Your task to perform on an android device: Open Chrome and go to settings Image 0: 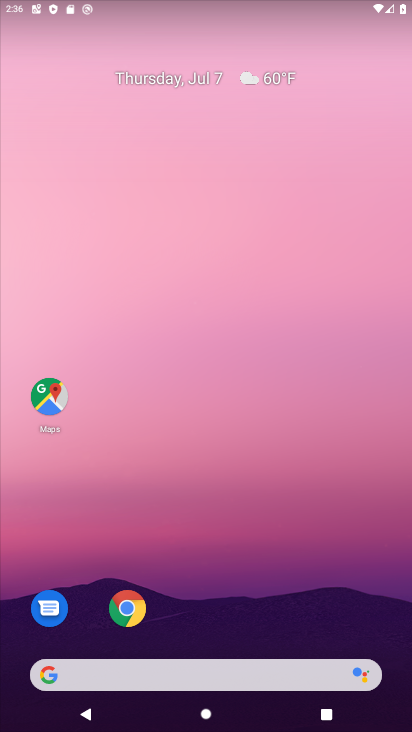
Step 0: press home button
Your task to perform on an android device: Open Chrome and go to settings Image 1: 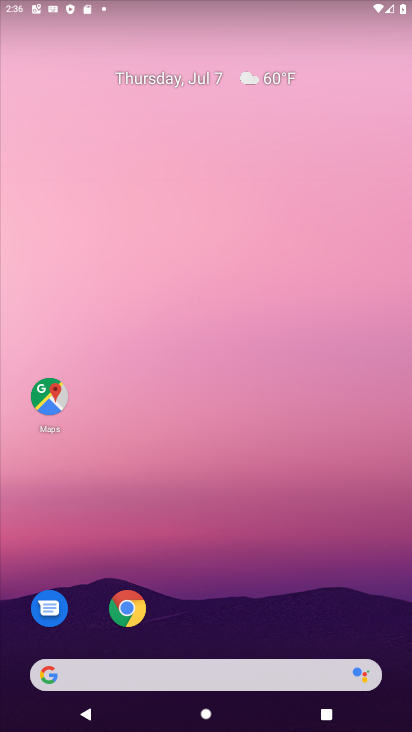
Step 1: click (130, 607)
Your task to perform on an android device: Open Chrome and go to settings Image 2: 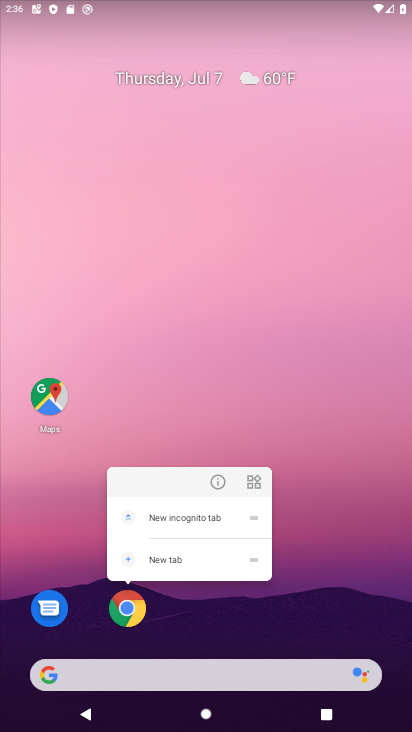
Step 2: click (125, 606)
Your task to perform on an android device: Open Chrome and go to settings Image 3: 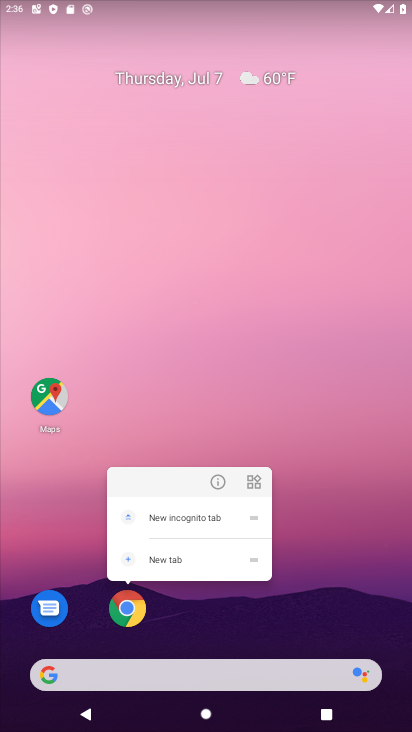
Step 3: drag from (218, 641) to (256, 168)
Your task to perform on an android device: Open Chrome and go to settings Image 4: 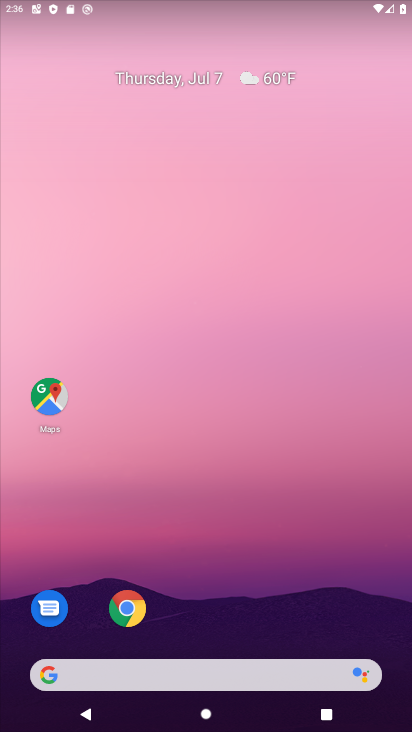
Step 4: click (128, 604)
Your task to perform on an android device: Open Chrome and go to settings Image 5: 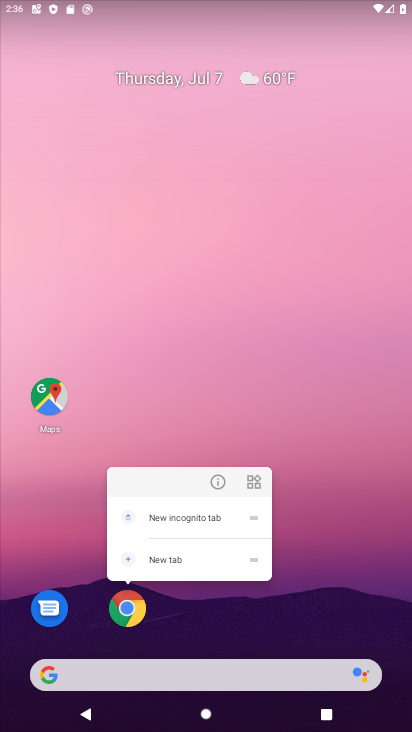
Step 5: click (130, 606)
Your task to perform on an android device: Open Chrome and go to settings Image 6: 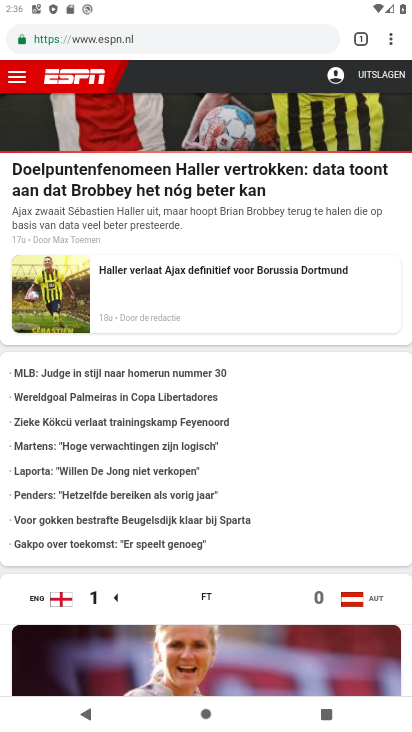
Step 6: click (393, 35)
Your task to perform on an android device: Open Chrome and go to settings Image 7: 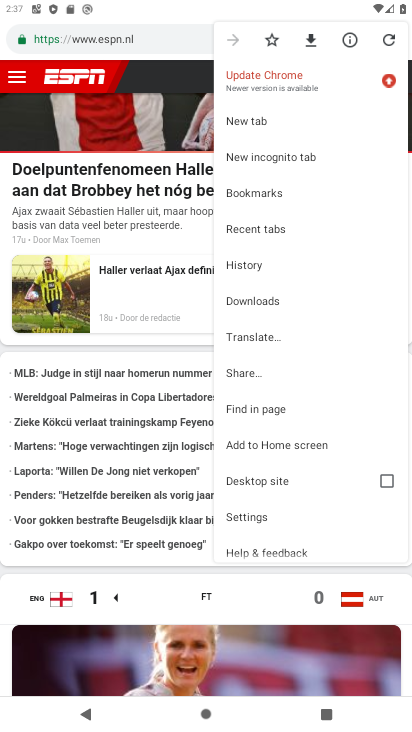
Step 7: click (276, 516)
Your task to perform on an android device: Open Chrome and go to settings Image 8: 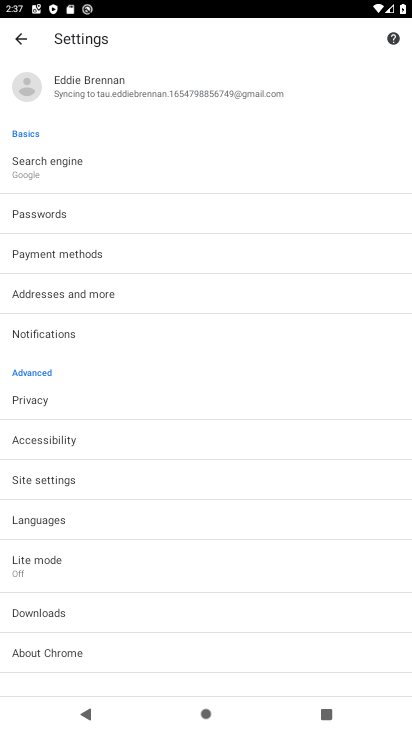
Step 8: task complete